Your task to perform on an android device: Open eBay Image 0: 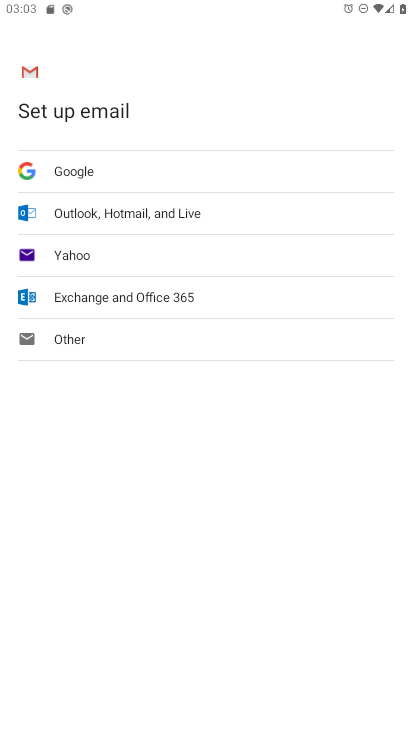
Step 0: press home button
Your task to perform on an android device: Open eBay Image 1: 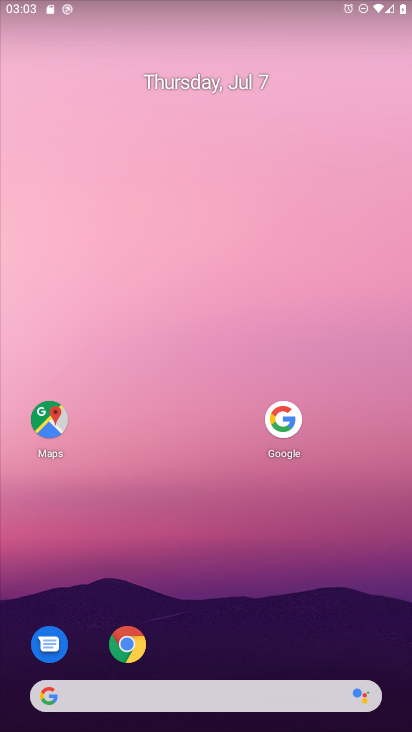
Step 1: click (129, 648)
Your task to perform on an android device: Open eBay Image 2: 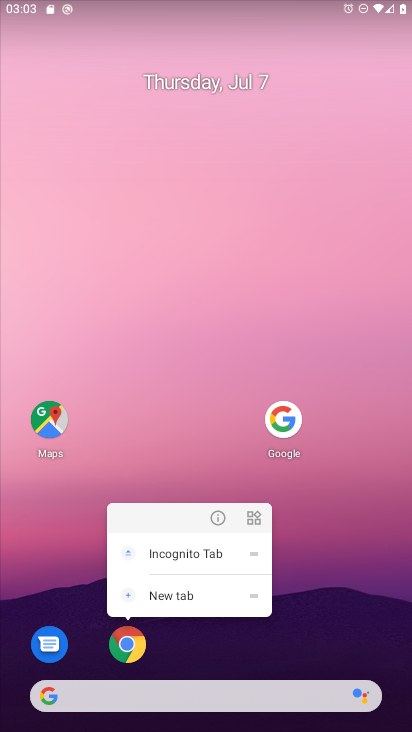
Step 2: click (122, 645)
Your task to perform on an android device: Open eBay Image 3: 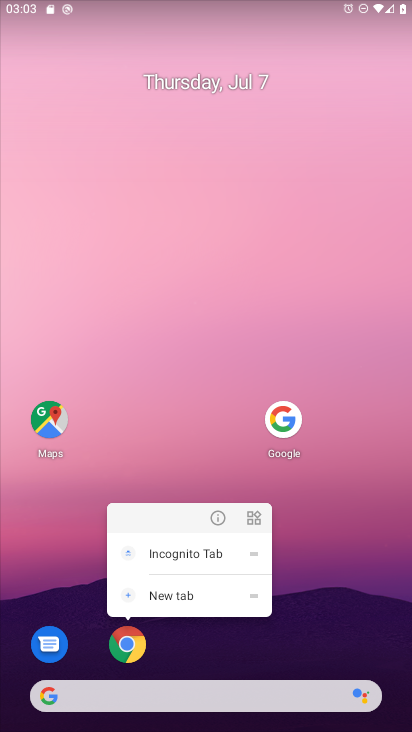
Step 3: click (122, 647)
Your task to perform on an android device: Open eBay Image 4: 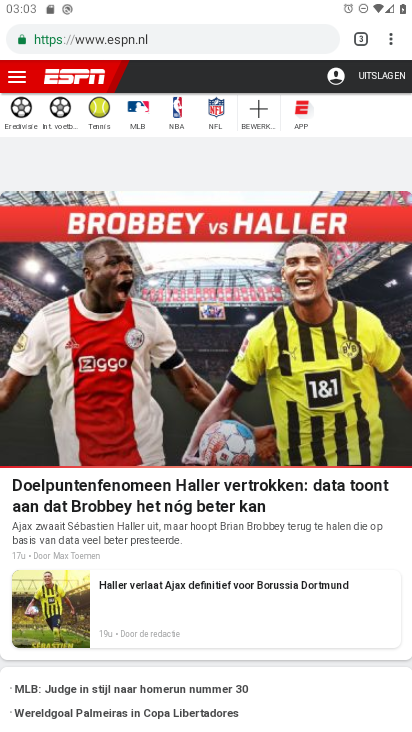
Step 4: drag from (387, 39) to (279, 76)
Your task to perform on an android device: Open eBay Image 5: 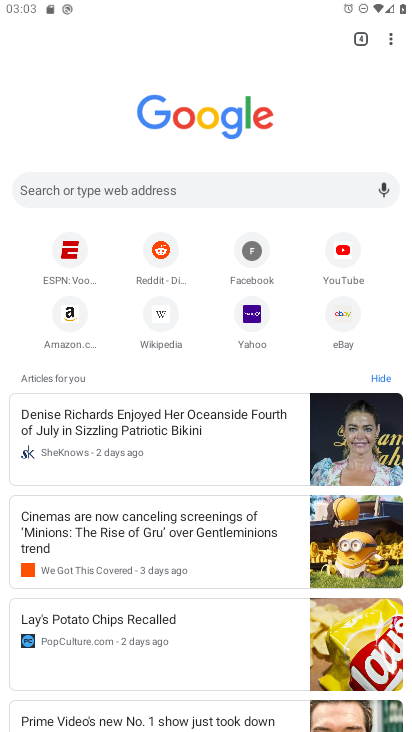
Step 5: click (337, 322)
Your task to perform on an android device: Open eBay Image 6: 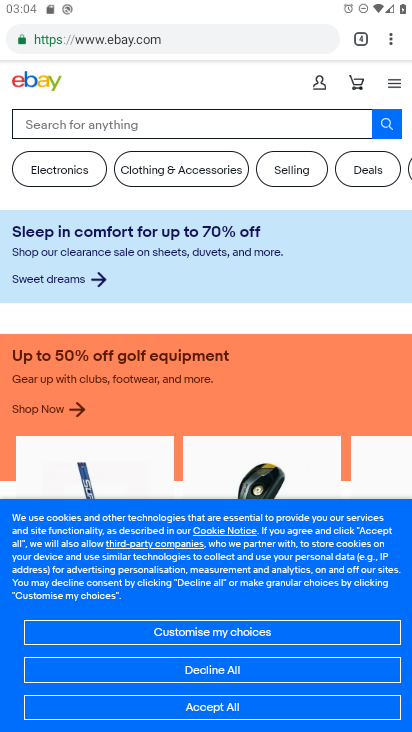
Step 6: task complete